Your task to perform on an android device: see sites visited before in the chrome app Image 0: 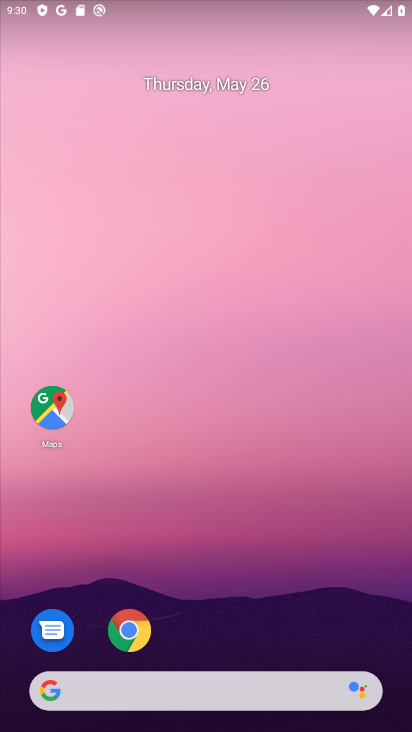
Step 0: click (120, 616)
Your task to perform on an android device: see sites visited before in the chrome app Image 1: 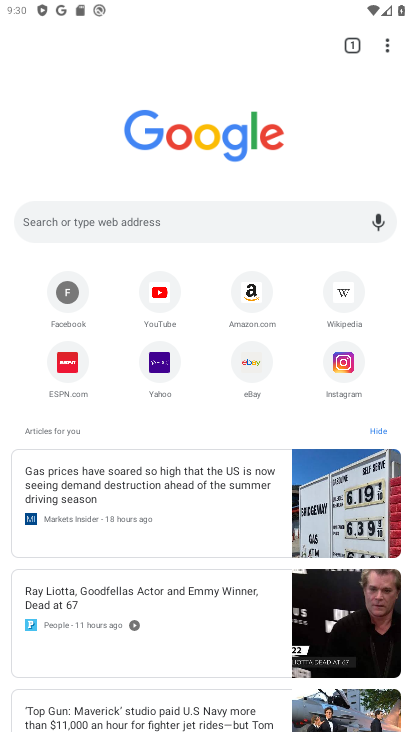
Step 1: click (389, 47)
Your task to perform on an android device: see sites visited before in the chrome app Image 2: 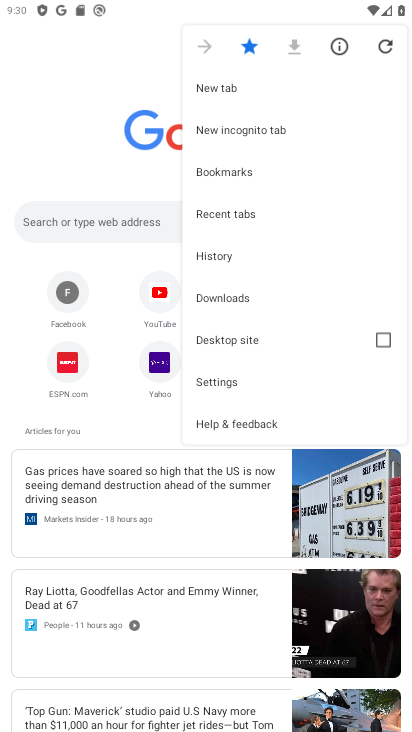
Step 2: click (213, 248)
Your task to perform on an android device: see sites visited before in the chrome app Image 3: 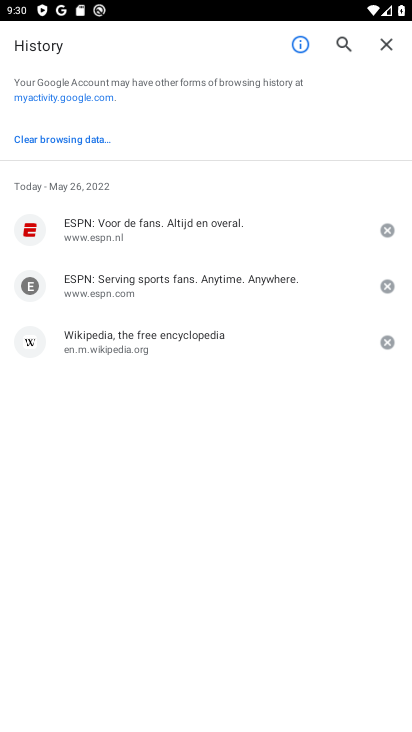
Step 3: task complete